Your task to perform on an android device: open app "Messenger Lite" (install if not already installed) Image 0: 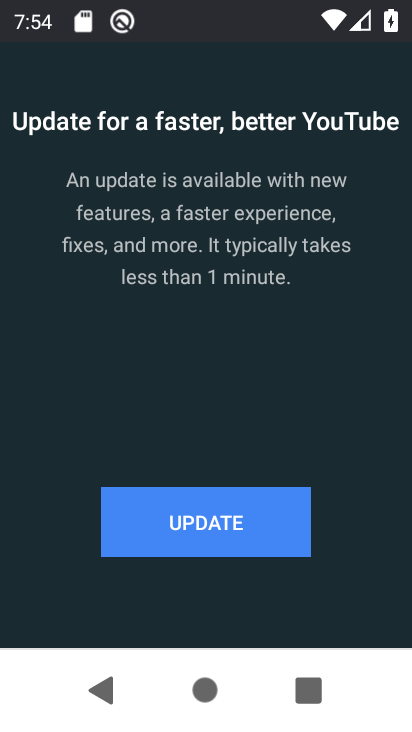
Step 0: press home button
Your task to perform on an android device: open app "Messenger Lite" (install if not already installed) Image 1: 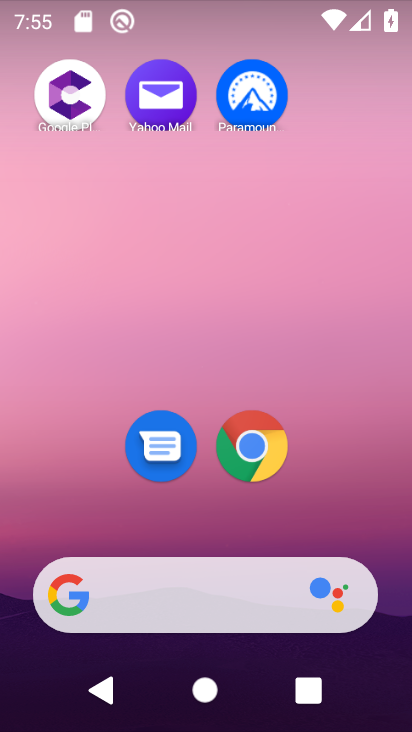
Step 1: drag from (184, 310) to (215, 62)
Your task to perform on an android device: open app "Messenger Lite" (install if not already installed) Image 2: 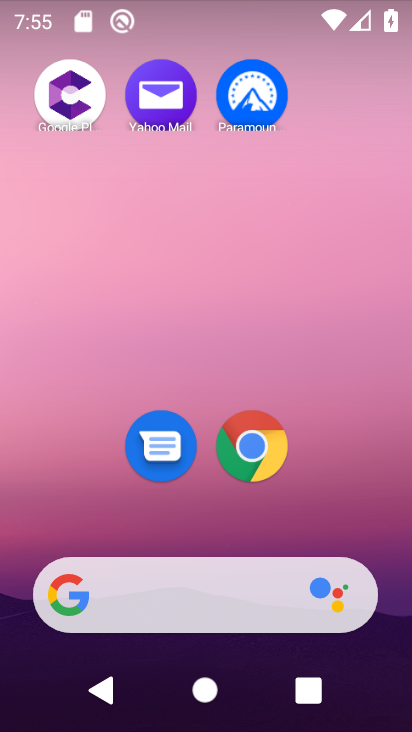
Step 2: drag from (198, 531) to (186, 151)
Your task to perform on an android device: open app "Messenger Lite" (install if not already installed) Image 3: 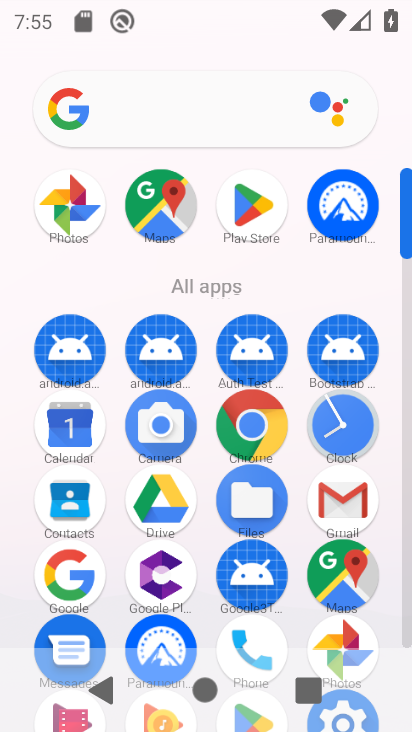
Step 3: click (237, 215)
Your task to perform on an android device: open app "Messenger Lite" (install if not already installed) Image 4: 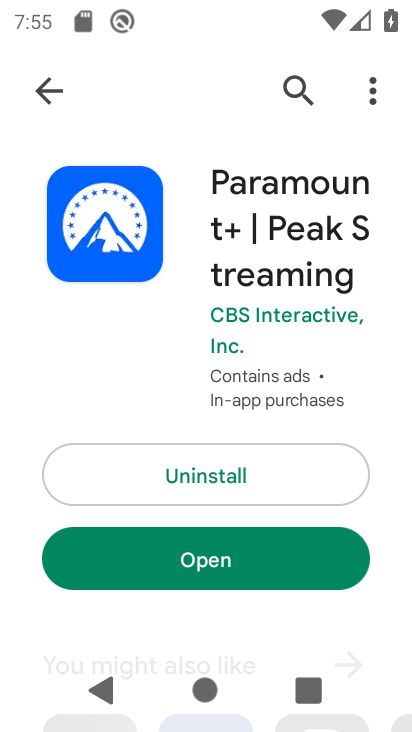
Step 4: click (296, 82)
Your task to perform on an android device: open app "Messenger Lite" (install if not already installed) Image 5: 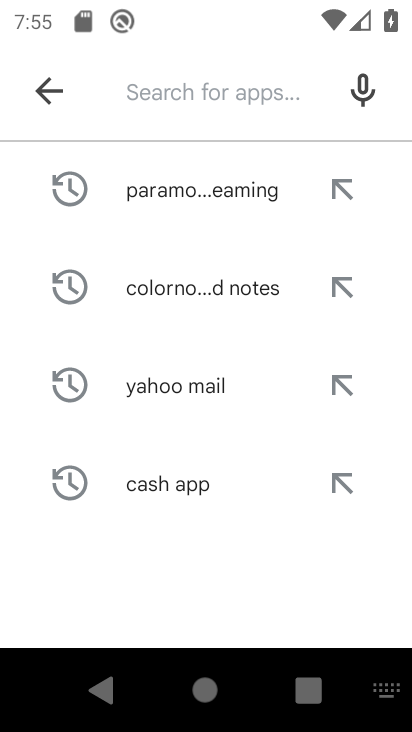
Step 5: type "Messenger Lite"
Your task to perform on an android device: open app "Messenger Lite" (install if not already installed) Image 6: 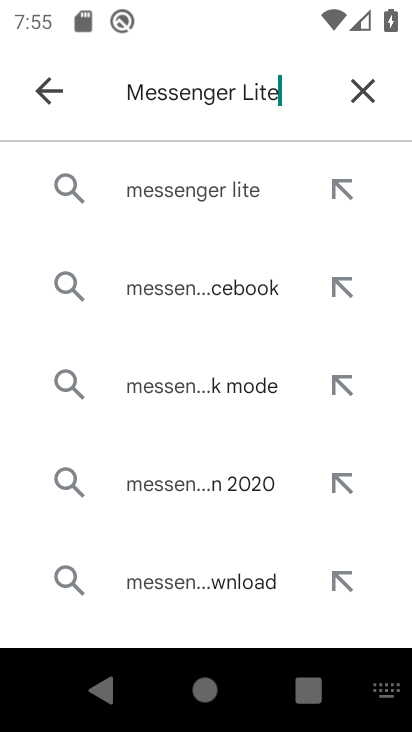
Step 6: click (236, 196)
Your task to perform on an android device: open app "Messenger Lite" (install if not already installed) Image 7: 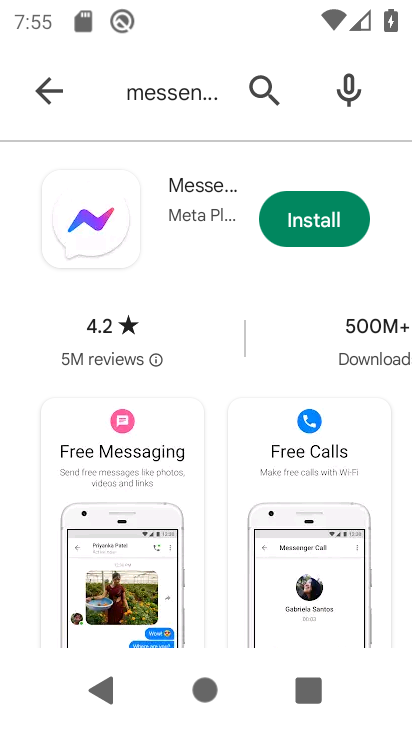
Step 7: click (339, 219)
Your task to perform on an android device: open app "Messenger Lite" (install if not already installed) Image 8: 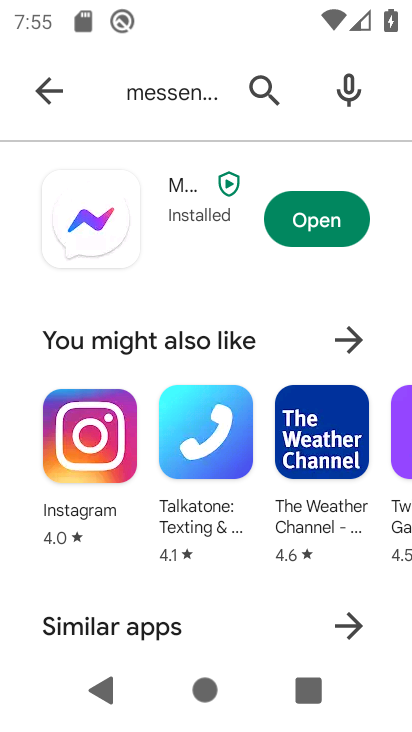
Step 8: click (351, 221)
Your task to perform on an android device: open app "Messenger Lite" (install if not already installed) Image 9: 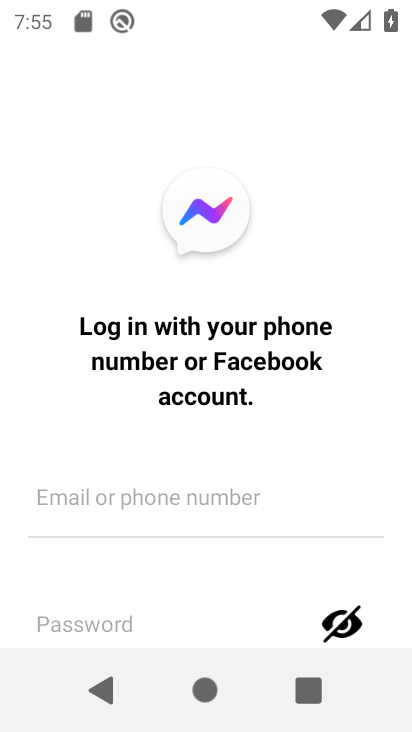
Step 9: task complete